Your task to perform on an android device: Open accessibility settings Image 0: 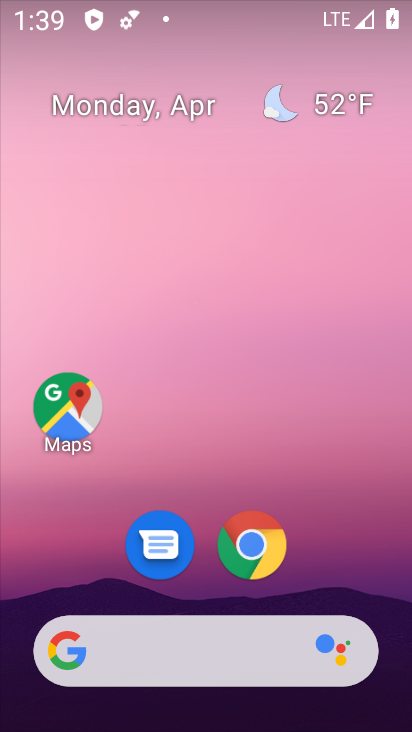
Step 0: drag from (227, 702) to (209, 194)
Your task to perform on an android device: Open accessibility settings Image 1: 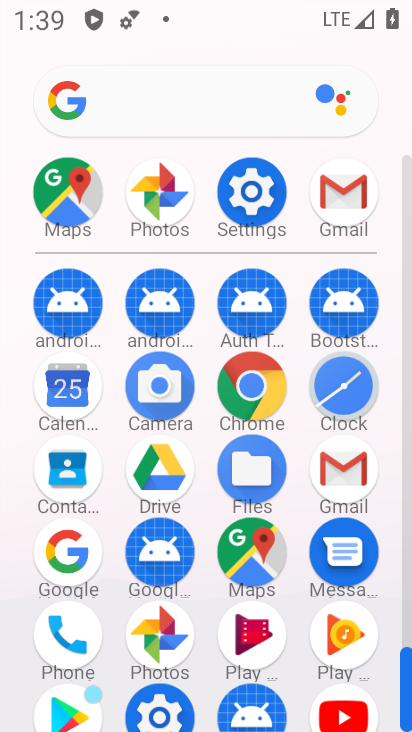
Step 1: click (254, 185)
Your task to perform on an android device: Open accessibility settings Image 2: 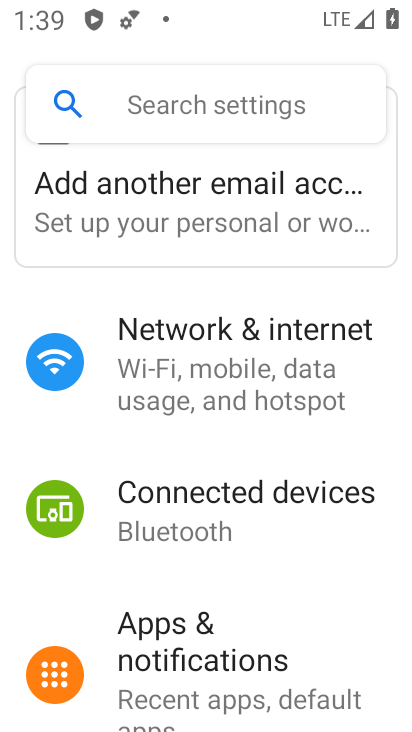
Step 2: drag from (223, 684) to (230, 314)
Your task to perform on an android device: Open accessibility settings Image 3: 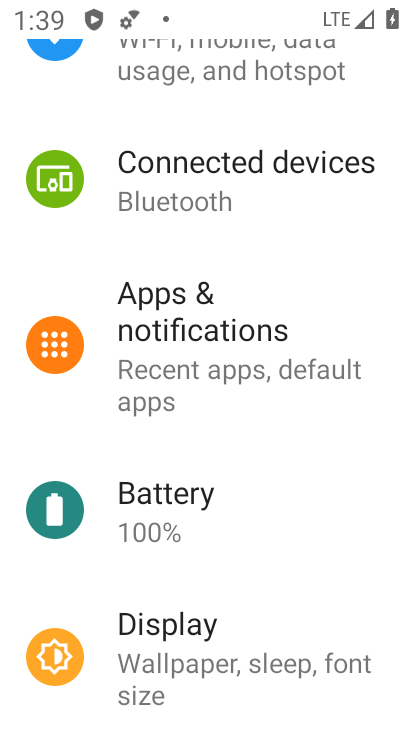
Step 3: drag from (225, 691) to (220, 216)
Your task to perform on an android device: Open accessibility settings Image 4: 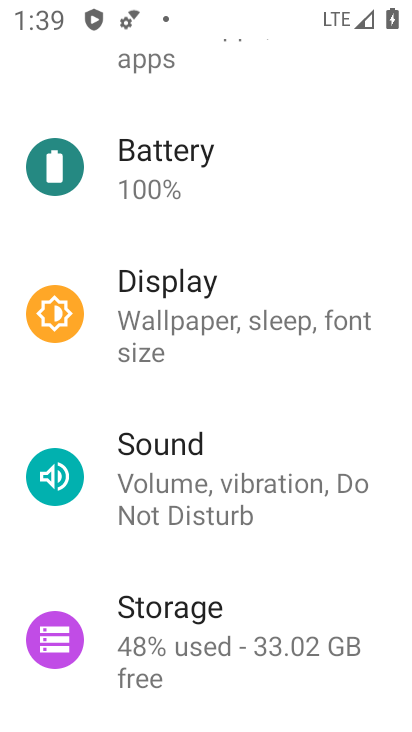
Step 4: drag from (226, 663) to (231, 226)
Your task to perform on an android device: Open accessibility settings Image 5: 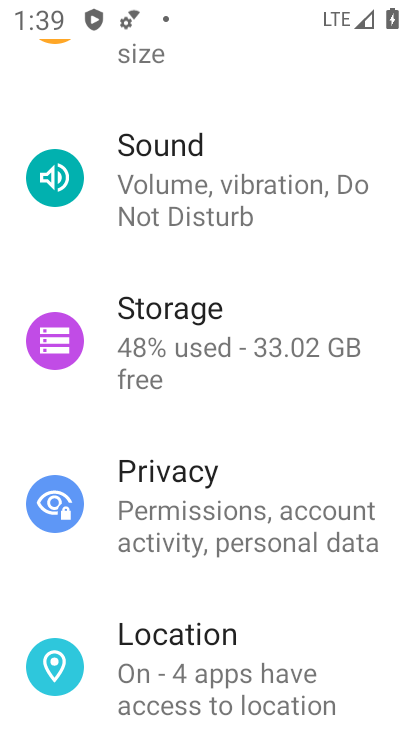
Step 5: drag from (196, 669) to (226, 155)
Your task to perform on an android device: Open accessibility settings Image 6: 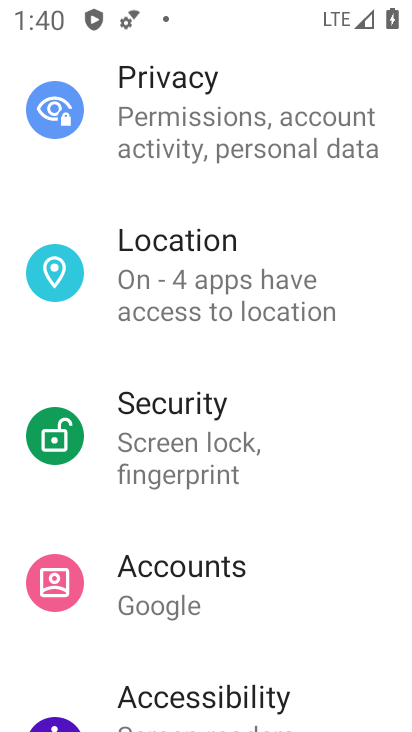
Step 6: click (209, 690)
Your task to perform on an android device: Open accessibility settings Image 7: 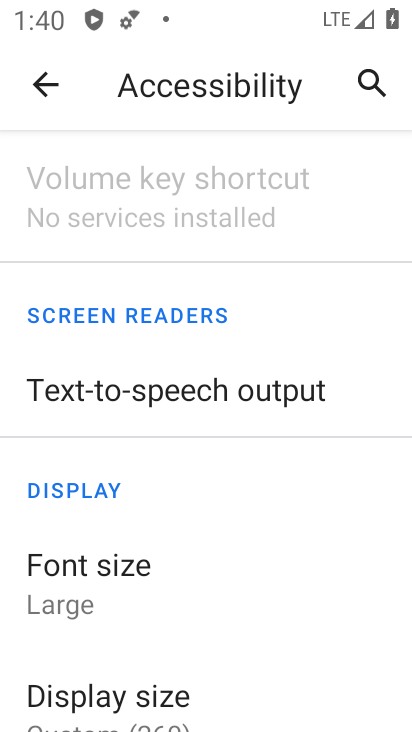
Step 7: task complete